Your task to perform on an android device: turn on location history Image 0: 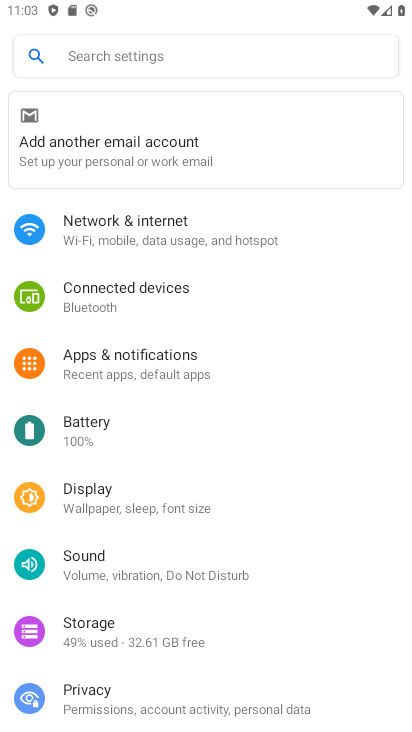
Step 0: drag from (214, 657) to (307, 130)
Your task to perform on an android device: turn on location history Image 1: 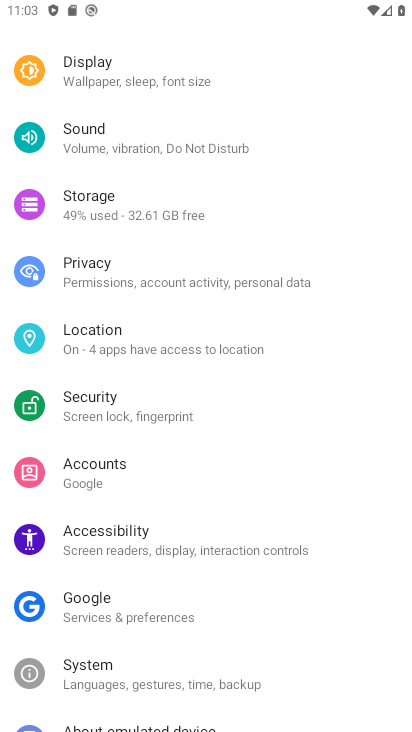
Step 1: drag from (152, 563) to (260, 146)
Your task to perform on an android device: turn on location history Image 2: 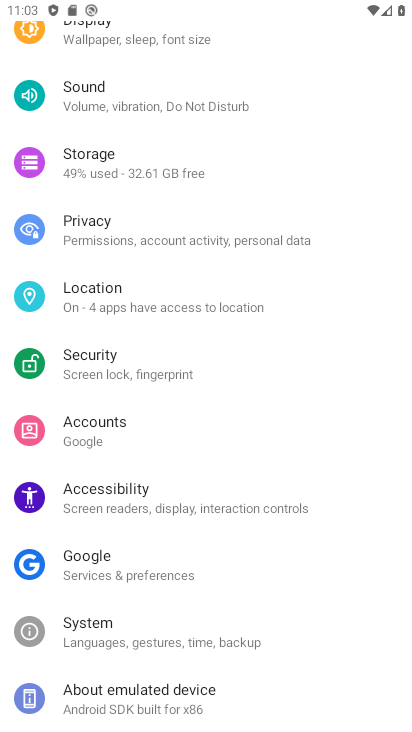
Step 2: click (137, 289)
Your task to perform on an android device: turn on location history Image 3: 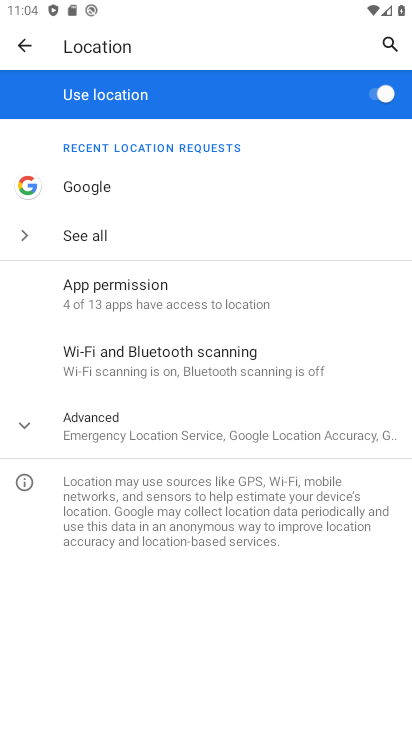
Step 3: click (250, 424)
Your task to perform on an android device: turn on location history Image 4: 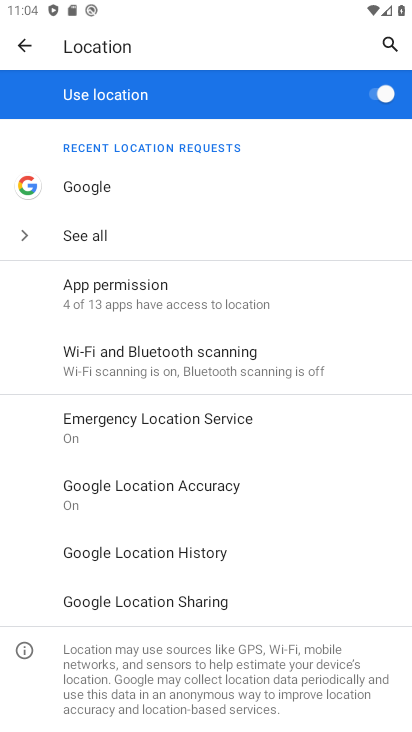
Step 4: click (215, 552)
Your task to perform on an android device: turn on location history Image 5: 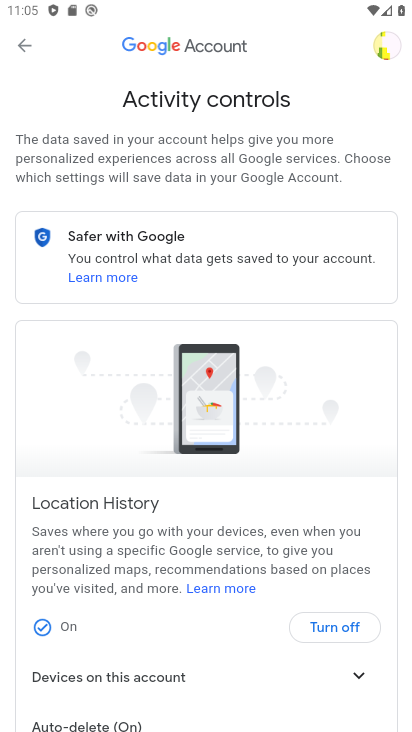
Step 5: task complete